Your task to perform on an android device: move a message to another label in the gmail app Image 0: 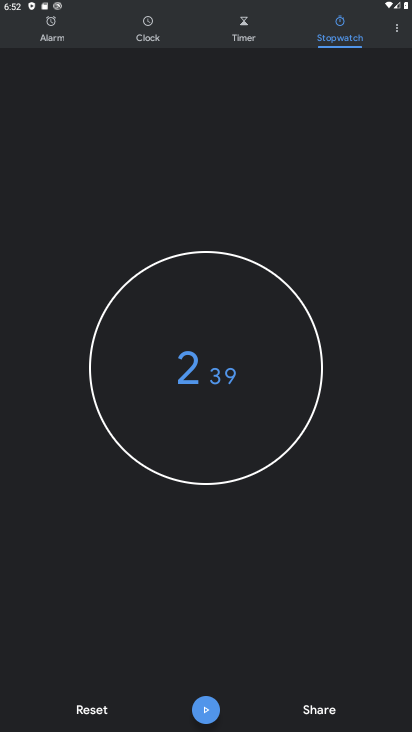
Step 0: press home button
Your task to perform on an android device: move a message to another label in the gmail app Image 1: 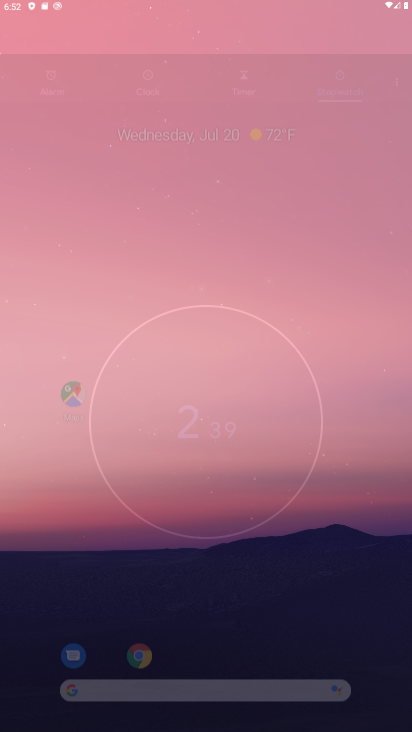
Step 1: drag from (396, 671) to (258, 38)
Your task to perform on an android device: move a message to another label in the gmail app Image 2: 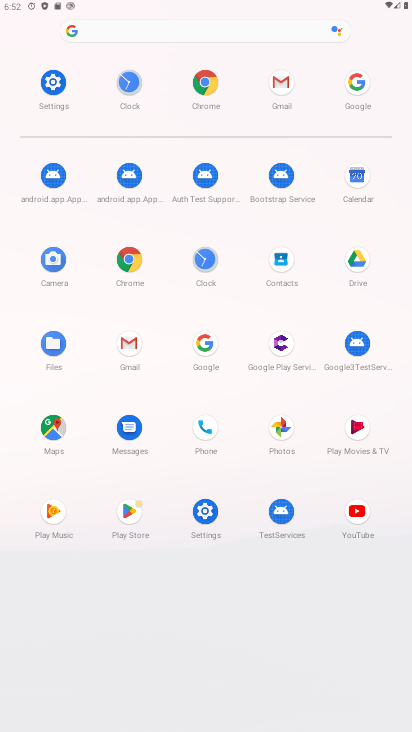
Step 2: click (128, 341)
Your task to perform on an android device: move a message to another label in the gmail app Image 3: 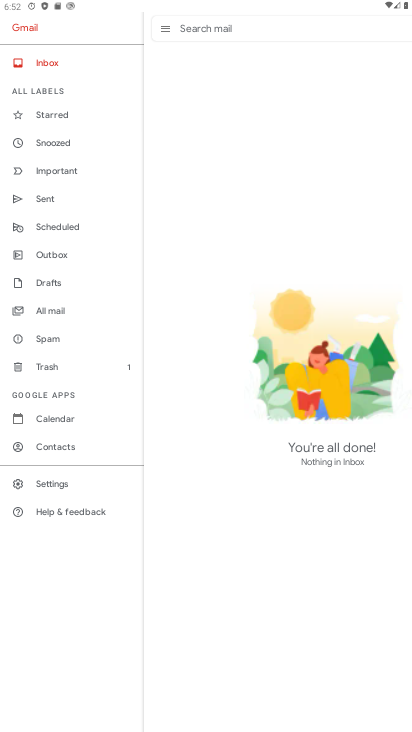
Step 3: task complete